Your task to perform on an android device: Go to display settings Image 0: 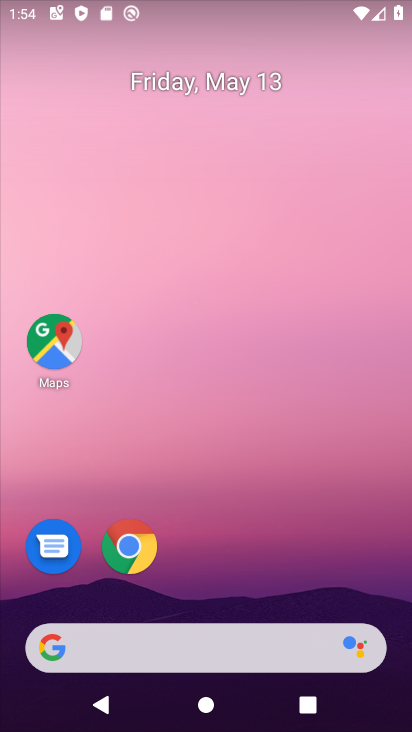
Step 0: drag from (303, 588) to (302, 1)
Your task to perform on an android device: Go to display settings Image 1: 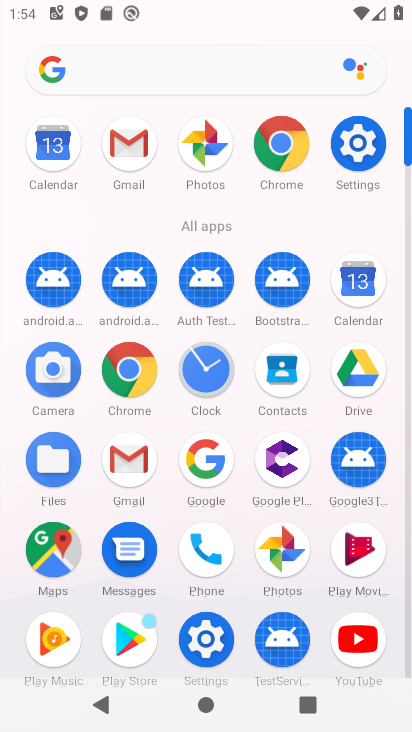
Step 1: click (362, 141)
Your task to perform on an android device: Go to display settings Image 2: 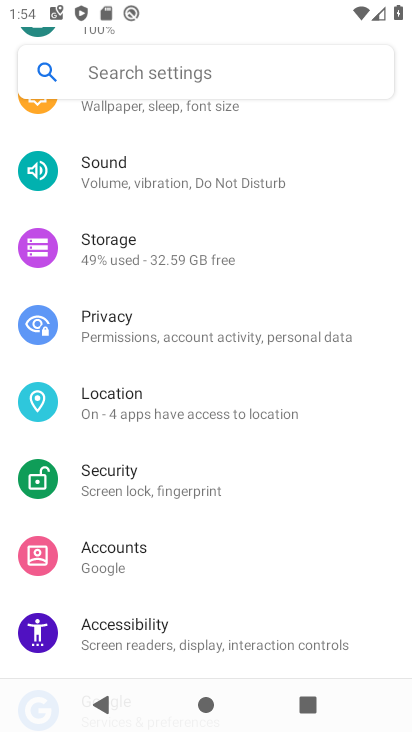
Step 2: drag from (203, 282) to (227, 578)
Your task to perform on an android device: Go to display settings Image 3: 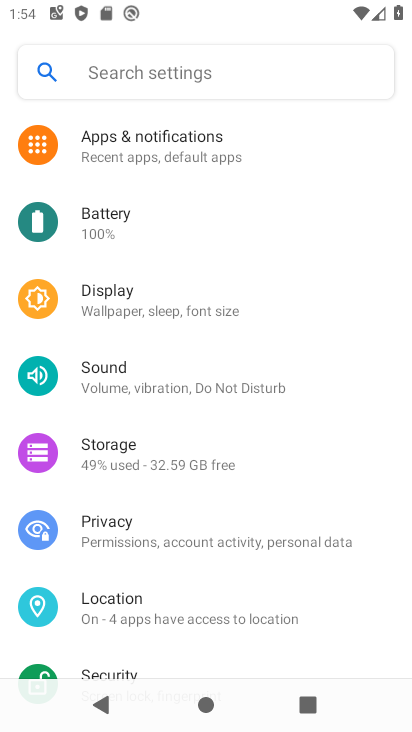
Step 3: click (155, 318)
Your task to perform on an android device: Go to display settings Image 4: 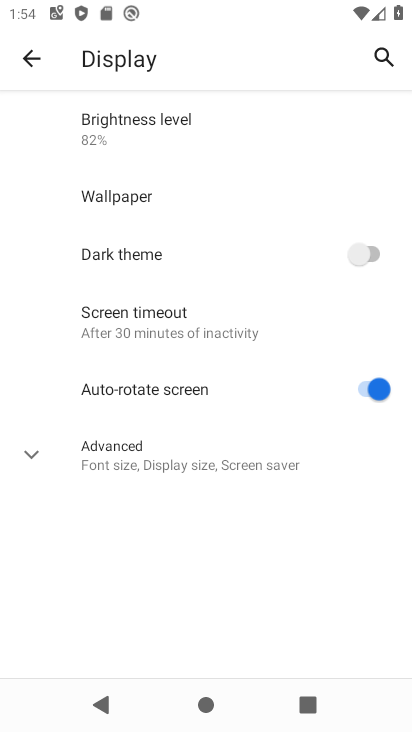
Step 4: task complete